Your task to perform on an android device: move an email to a new category in the gmail app Image 0: 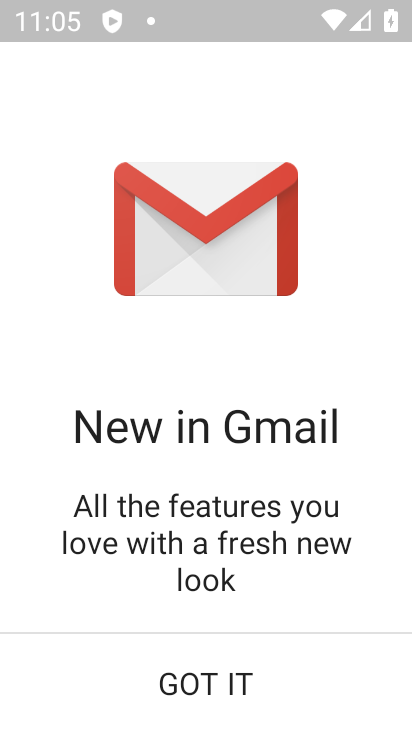
Step 0: click (280, 661)
Your task to perform on an android device: move an email to a new category in the gmail app Image 1: 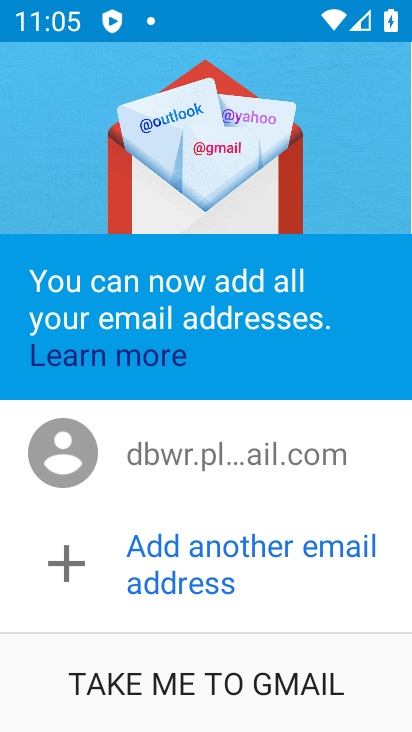
Step 1: click (175, 691)
Your task to perform on an android device: move an email to a new category in the gmail app Image 2: 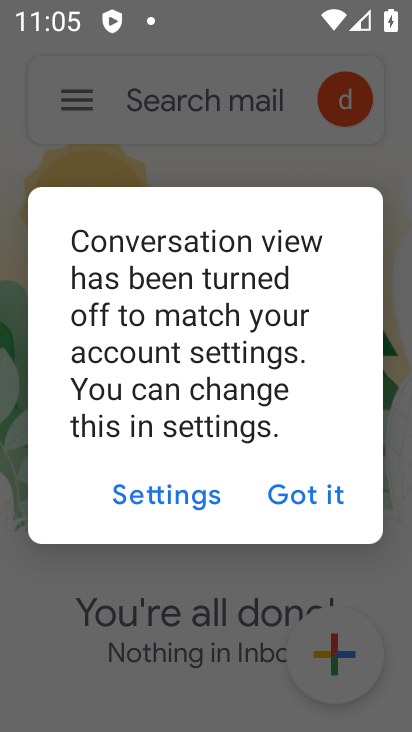
Step 2: click (281, 497)
Your task to perform on an android device: move an email to a new category in the gmail app Image 3: 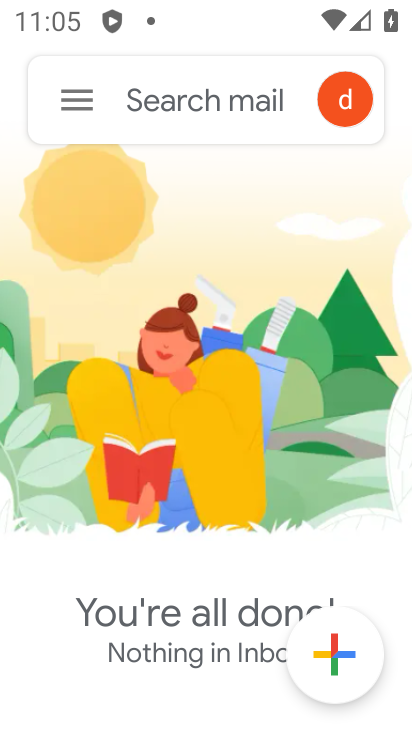
Step 3: click (62, 92)
Your task to perform on an android device: move an email to a new category in the gmail app Image 4: 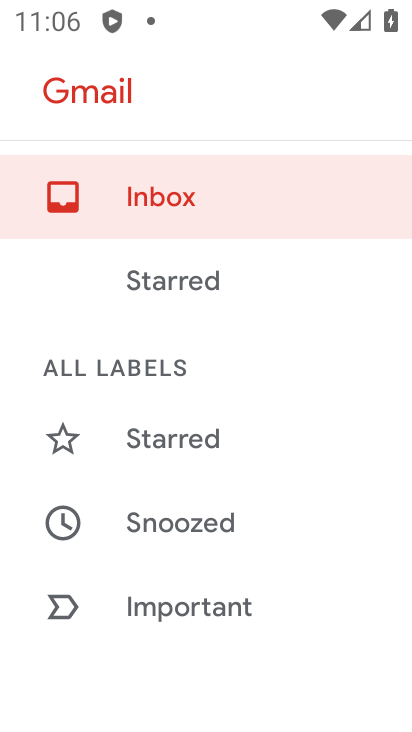
Step 4: drag from (223, 552) to (287, 198)
Your task to perform on an android device: move an email to a new category in the gmail app Image 5: 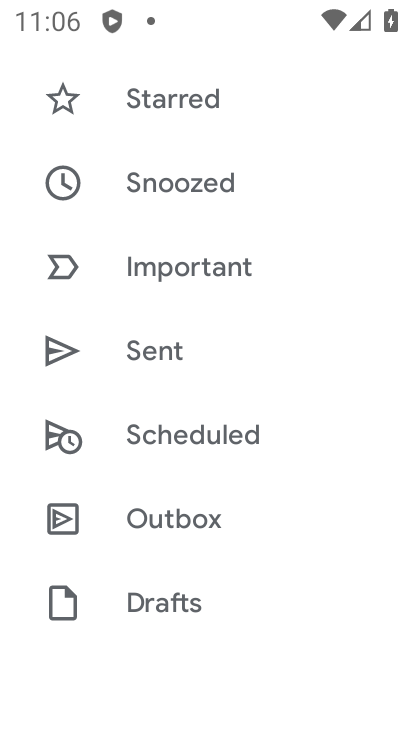
Step 5: drag from (157, 580) to (226, 217)
Your task to perform on an android device: move an email to a new category in the gmail app Image 6: 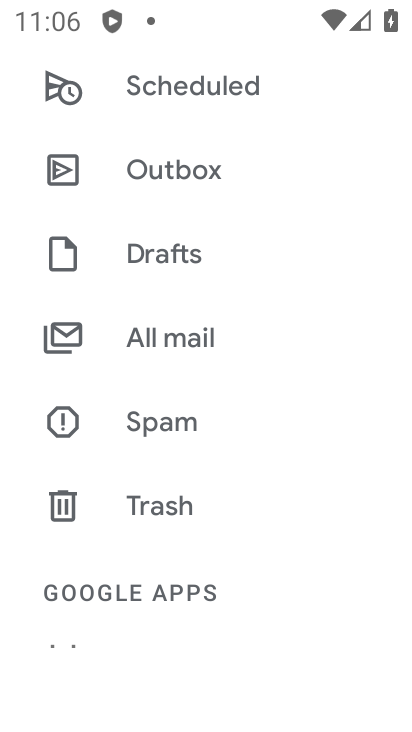
Step 6: click (183, 336)
Your task to perform on an android device: move an email to a new category in the gmail app Image 7: 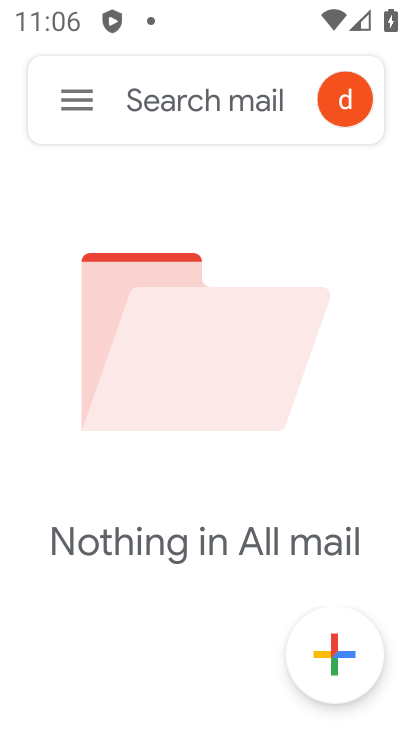
Step 7: task complete